Your task to perform on an android device: open chrome privacy settings Image 0: 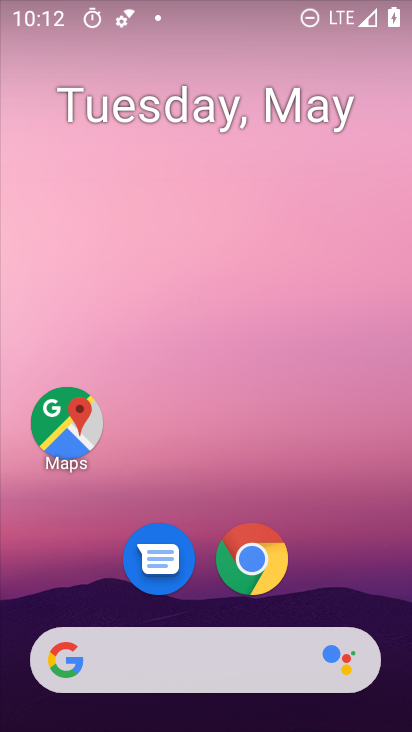
Step 0: drag from (395, 661) to (298, 88)
Your task to perform on an android device: open chrome privacy settings Image 1: 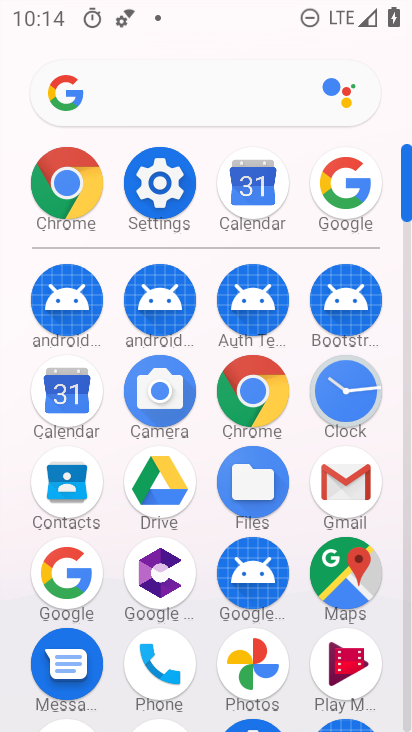
Step 1: click (49, 170)
Your task to perform on an android device: open chrome privacy settings Image 2: 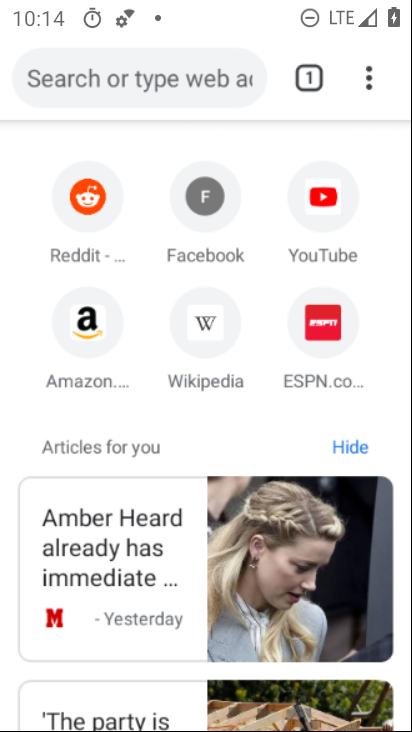
Step 2: click (365, 71)
Your task to perform on an android device: open chrome privacy settings Image 3: 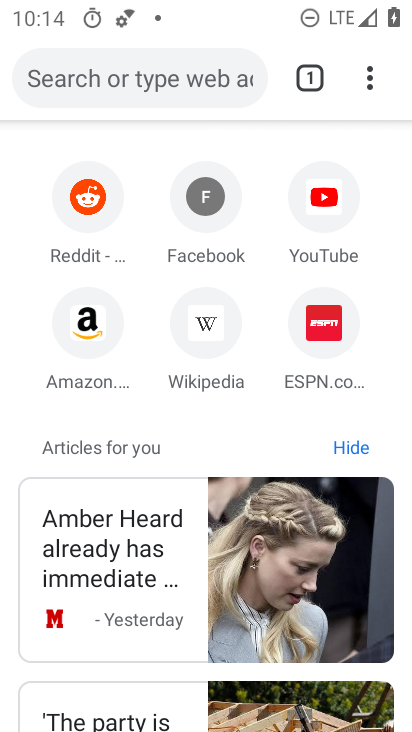
Step 3: click (372, 61)
Your task to perform on an android device: open chrome privacy settings Image 4: 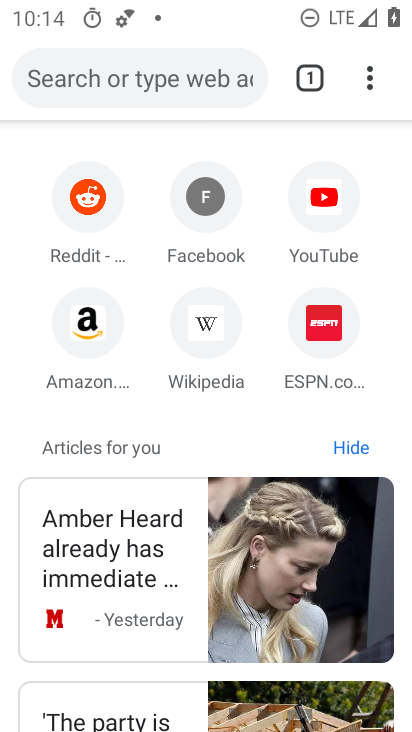
Step 4: click (367, 73)
Your task to perform on an android device: open chrome privacy settings Image 5: 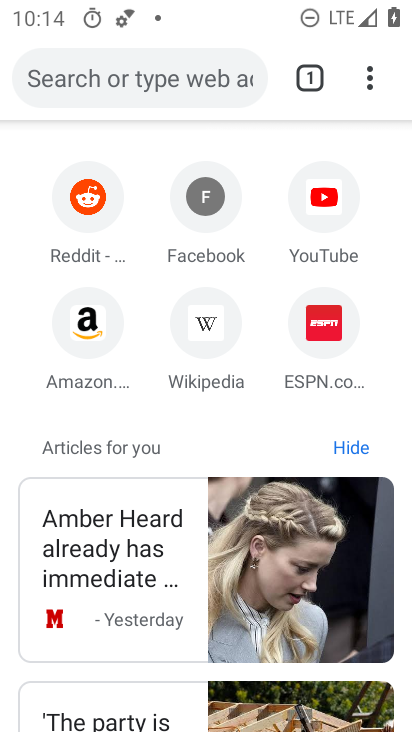
Step 5: click (367, 74)
Your task to perform on an android device: open chrome privacy settings Image 6: 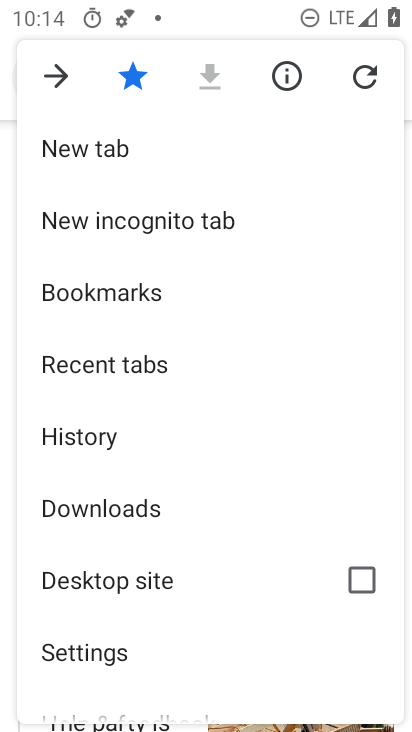
Step 6: click (94, 660)
Your task to perform on an android device: open chrome privacy settings Image 7: 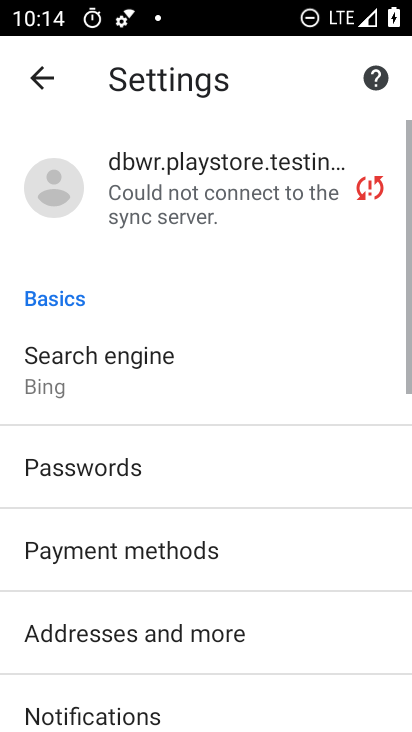
Step 7: drag from (94, 660) to (142, 263)
Your task to perform on an android device: open chrome privacy settings Image 8: 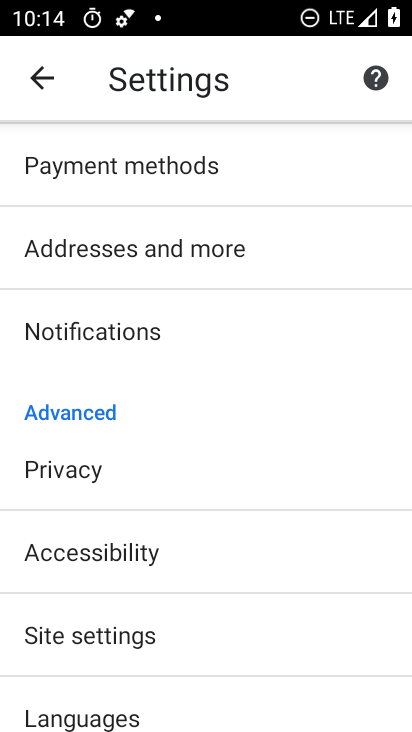
Step 8: click (153, 468)
Your task to perform on an android device: open chrome privacy settings Image 9: 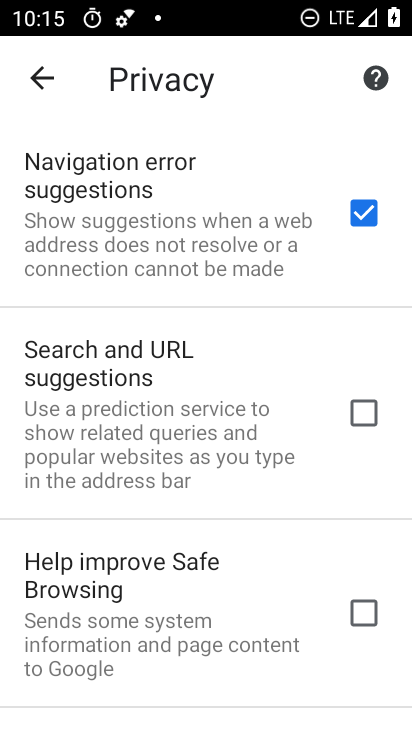
Step 9: task complete